Your task to perform on an android device: see tabs open on other devices in the chrome app Image 0: 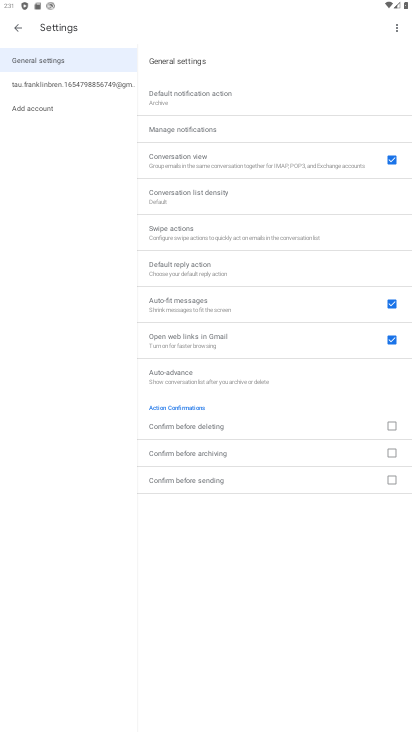
Step 0: press home button
Your task to perform on an android device: see tabs open on other devices in the chrome app Image 1: 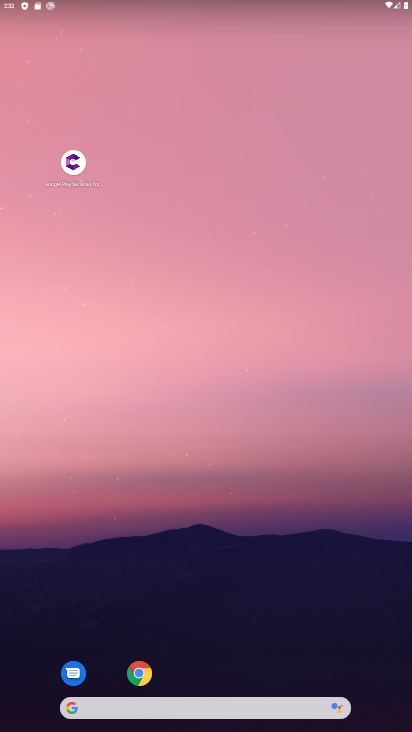
Step 1: click (140, 672)
Your task to perform on an android device: see tabs open on other devices in the chrome app Image 2: 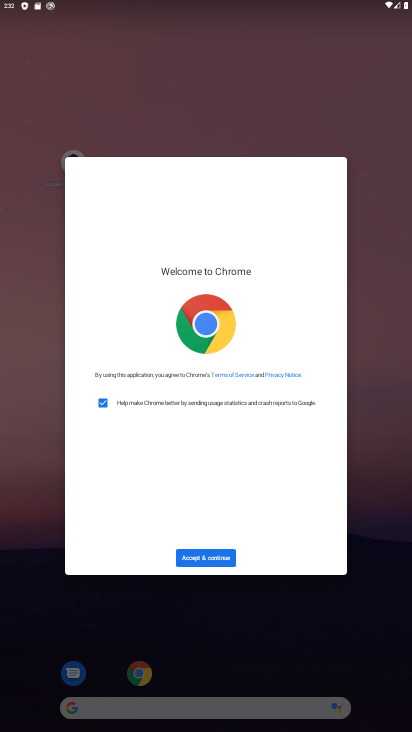
Step 2: click (225, 563)
Your task to perform on an android device: see tabs open on other devices in the chrome app Image 3: 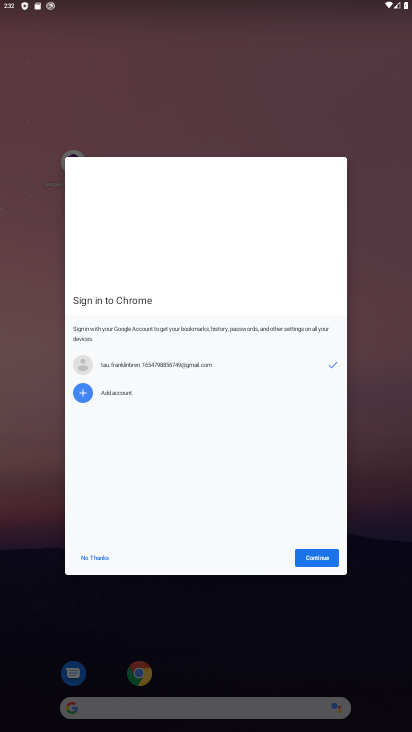
Step 3: click (308, 549)
Your task to perform on an android device: see tabs open on other devices in the chrome app Image 4: 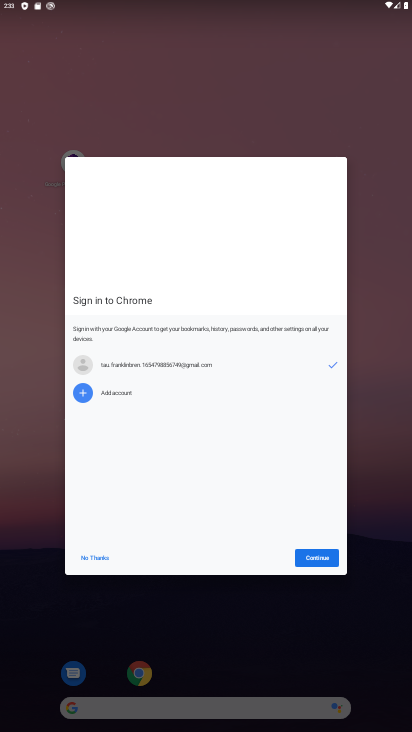
Step 4: click (305, 551)
Your task to perform on an android device: see tabs open on other devices in the chrome app Image 5: 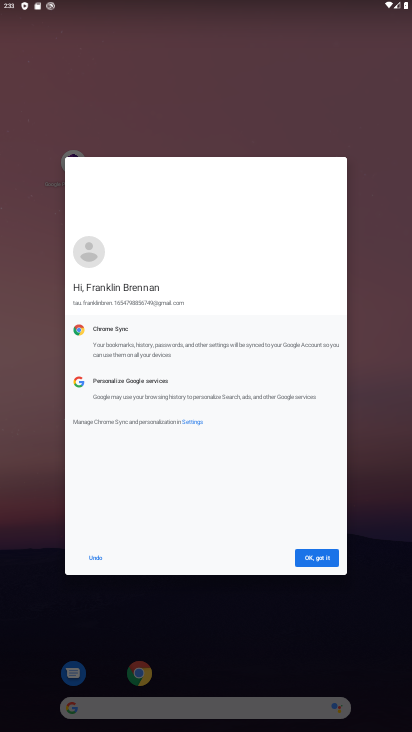
Step 5: click (333, 551)
Your task to perform on an android device: see tabs open on other devices in the chrome app Image 6: 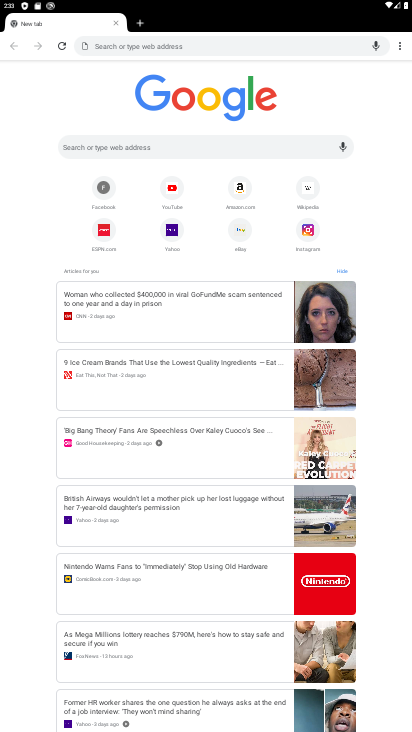
Step 6: click (398, 41)
Your task to perform on an android device: see tabs open on other devices in the chrome app Image 7: 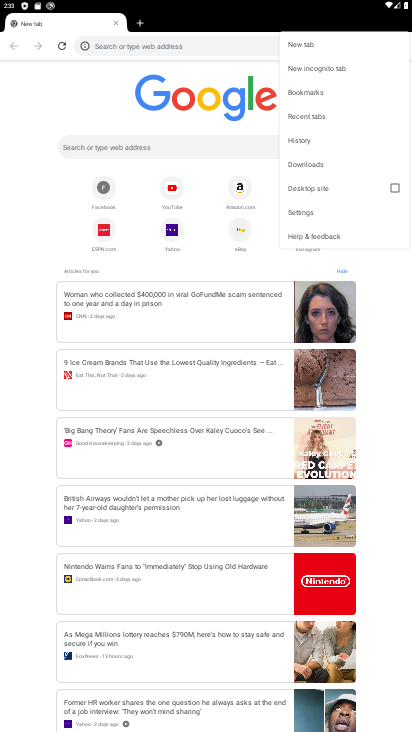
Step 7: click (308, 120)
Your task to perform on an android device: see tabs open on other devices in the chrome app Image 8: 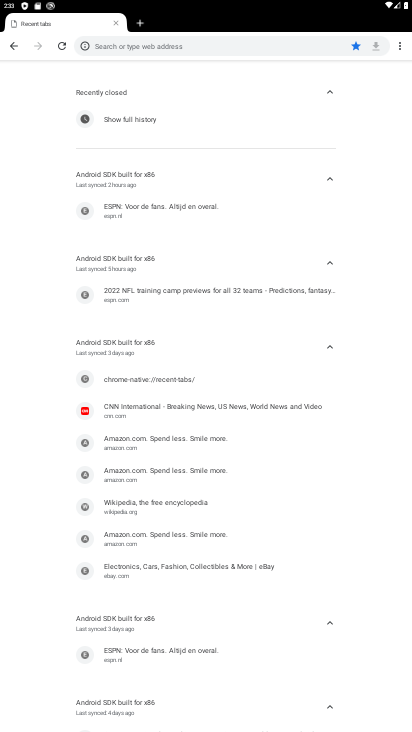
Step 8: task complete